Your task to perform on an android device: Open calendar and show me the third week of next month Image 0: 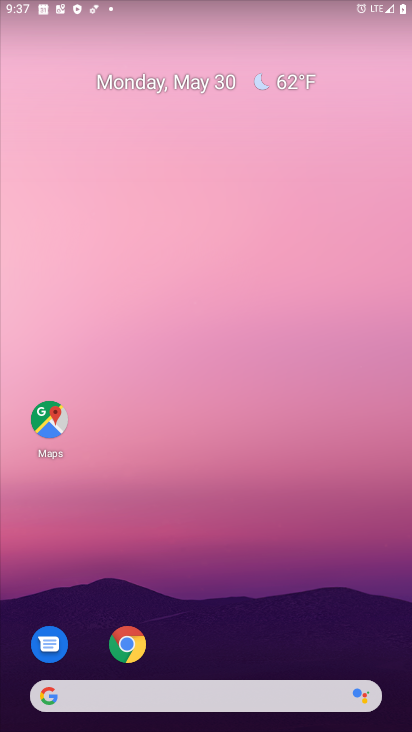
Step 0: drag from (391, 655) to (269, 69)
Your task to perform on an android device: Open calendar and show me the third week of next month Image 1: 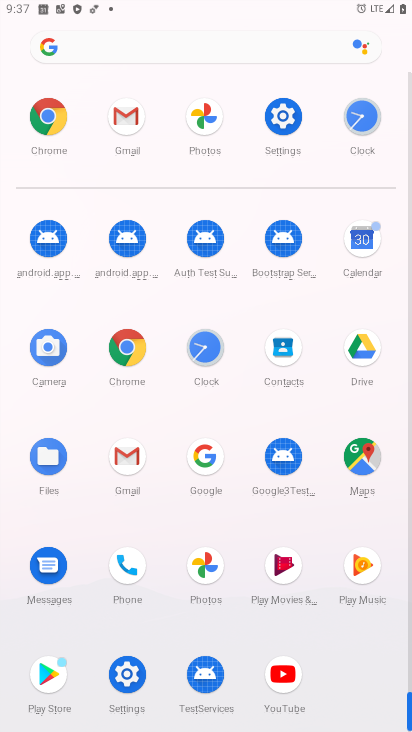
Step 1: click (359, 237)
Your task to perform on an android device: Open calendar and show me the third week of next month Image 2: 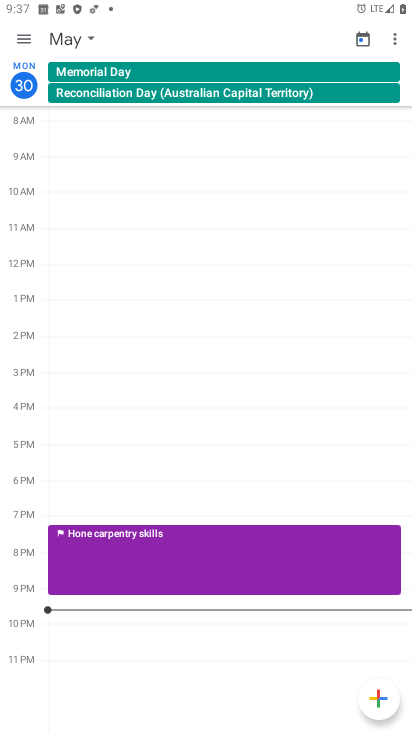
Step 2: click (20, 35)
Your task to perform on an android device: Open calendar and show me the third week of next month Image 3: 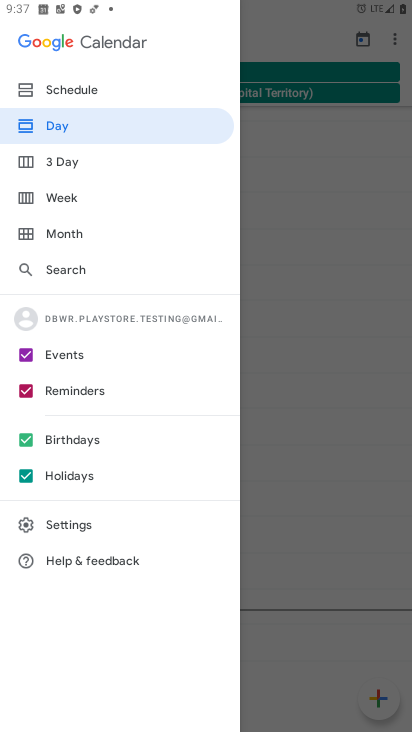
Step 3: click (63, 194)
Your task to perform on an android device: Open calendar and show me the third week of next month Image 4: 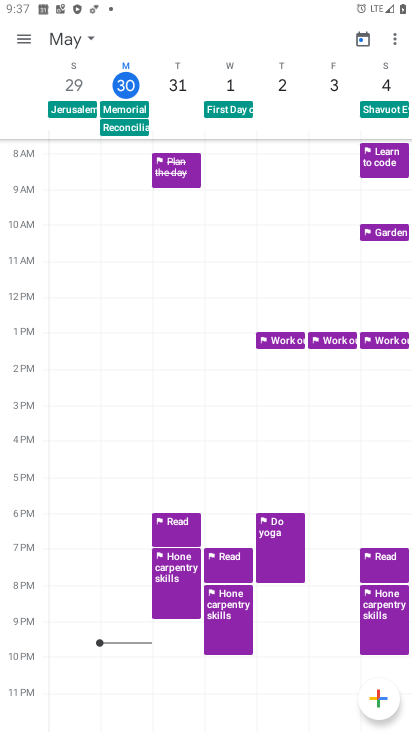
Step 4: click (86, 35)
Your task to perform on an android device: Open calendar and show me the third week of next month Image 5: 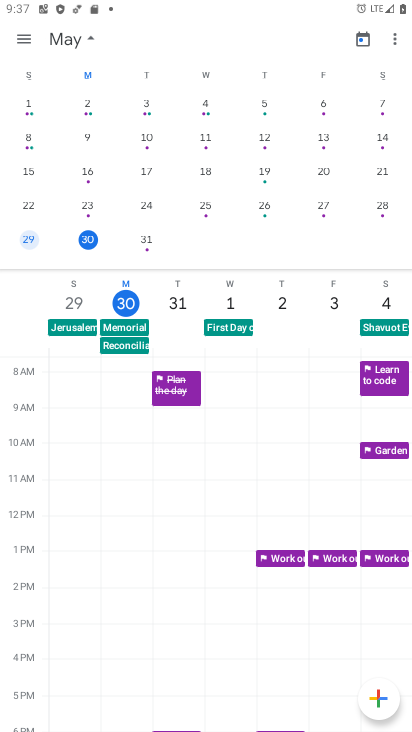
Step 5: drag from (379, 160) to (52, 179)
Your task to perform on an android device: Open calendar and show me the third week of next month Image 6: 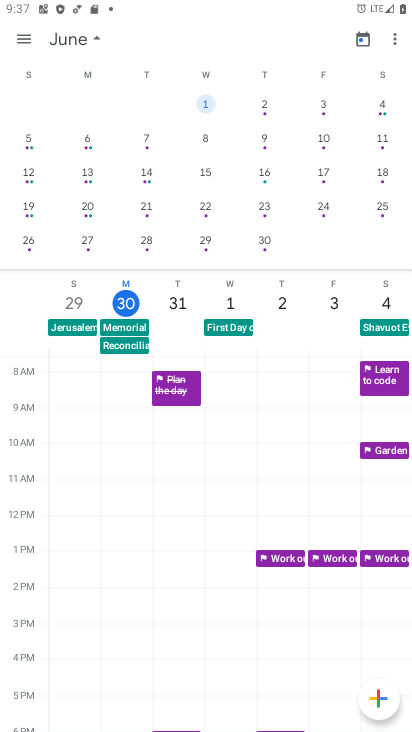
Step 6: click (24, 207)
Your task to perform on an android device: Open calendar and show me the third week of next month Image 7: 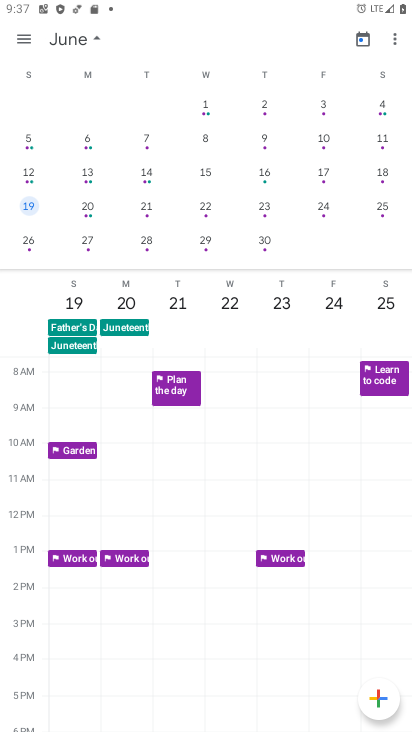
Step 7: drag from (253, 501) to (225, 289)
Your task to perform on an android device: Open calendar and show me the third week of next month Image 8: 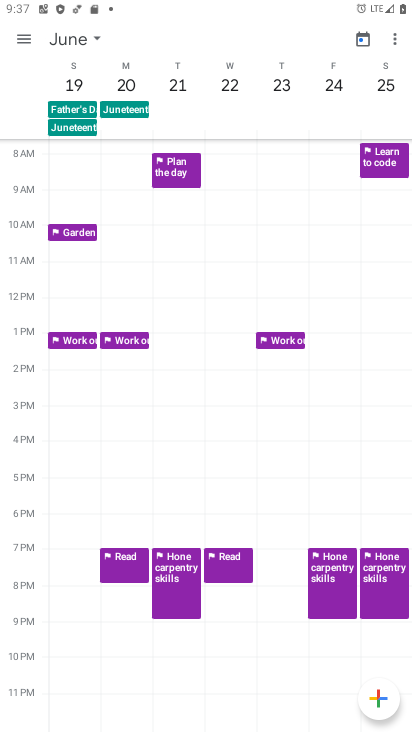
Step 8: click (230, 505)
Your task to perform on an android device: Open calendar and show me the third week of next month Image 9: 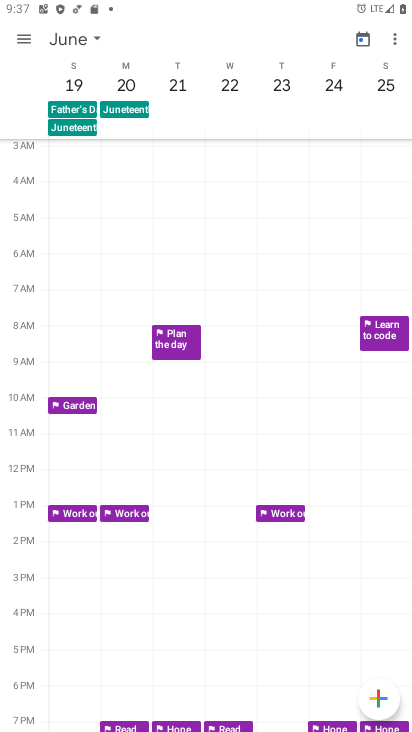
Step 9: task complete